Your task to perform on an android device: Open settings on Google Maps Image 0: 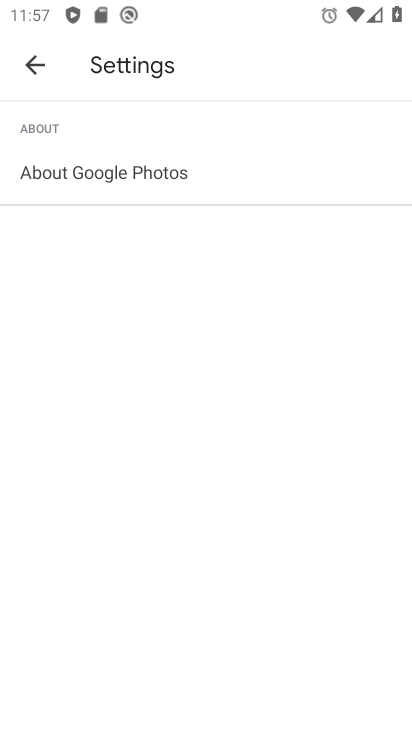
Step 0: press home button
Your task to perform on an android device: Open settings on Google Maps Image 1: 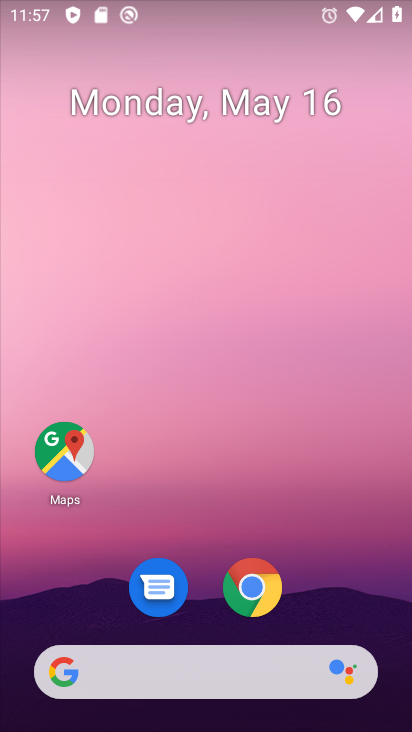
Step 1: drag from (384, 605) to (377, 30)
Your task to perform on an android device: Open settings on Google Maps Image 2: 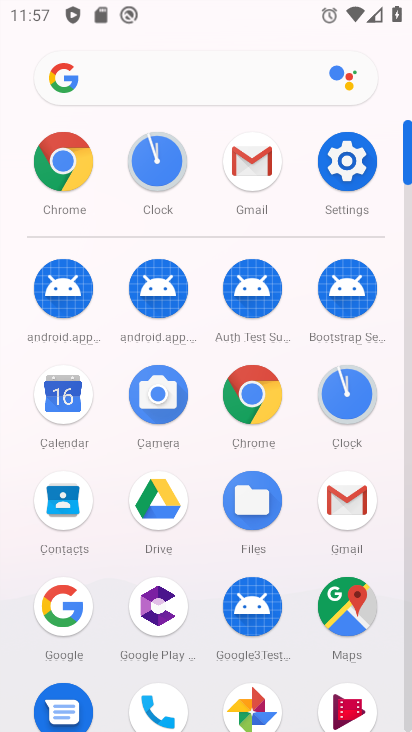
Step 2: click (352, 605)
Your task to perform on an android device: Open settings on Google Maps Image 3: 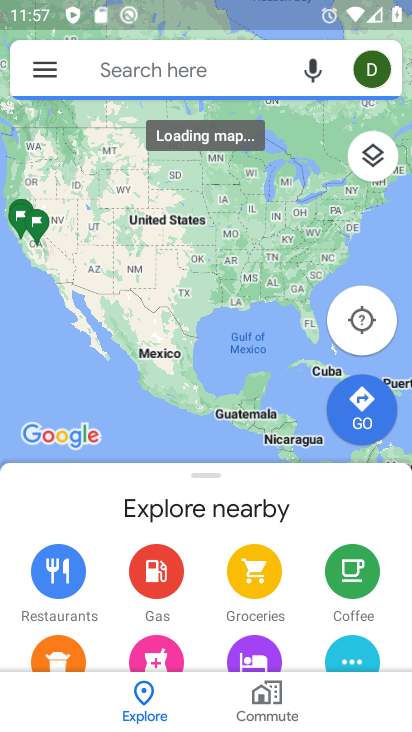
Step 3: click (31, 69)
Your task to perform on an android device: Open settings on Google Maps Image 4: 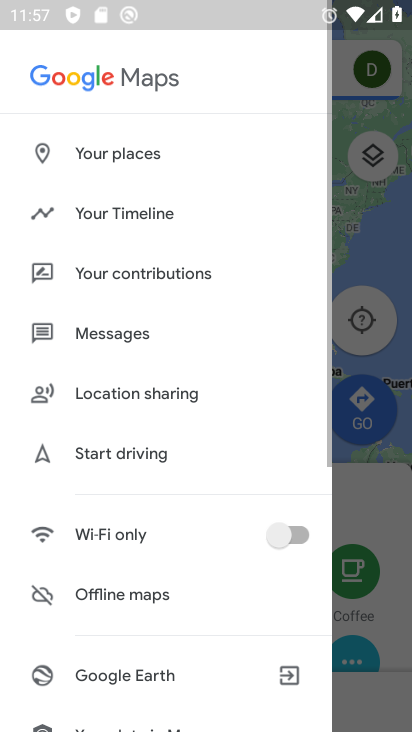
Step 4: drag from (106, 632) to (155, 79)
Your task to perform on an android device: Open settings on Google Maps Image 5: 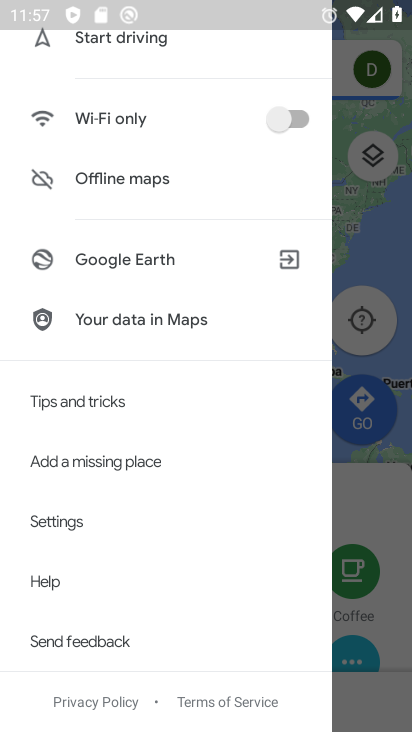
Step 5: click (92, 536)
Your task to perform on an android device: Open settings on Google Maps Image 6: 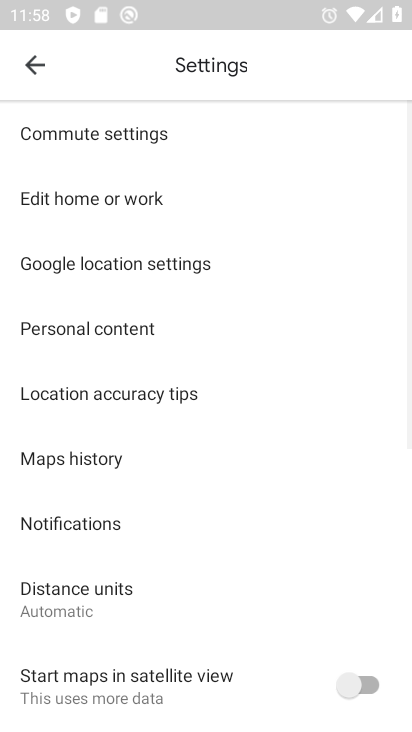
Step 6: task complete